Your task to perform on an android device: turn notification dots on Image 0: 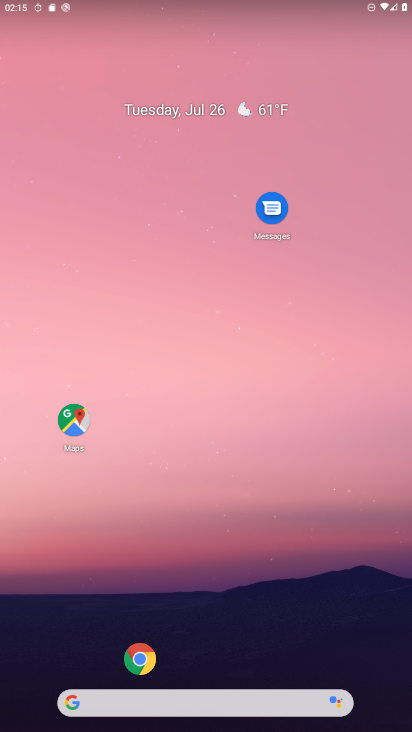
Step 0: drag from (51, 594) to (147, 353)
Your task to perform on an android device: turn notification dots on Image 1: 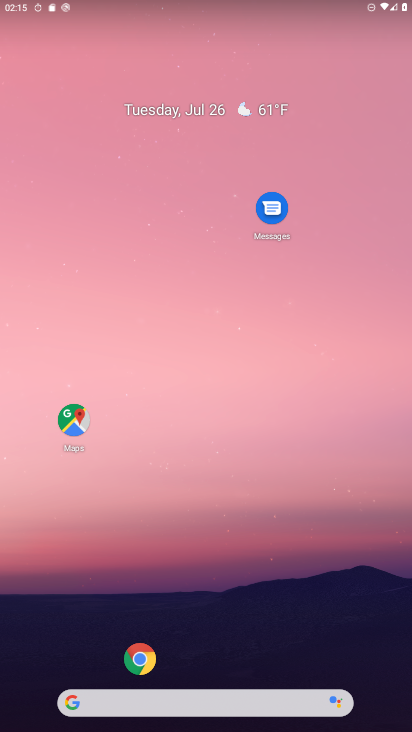
Step 1: drag from (12, 687) to (149, 288)
Your task to perform on an android device: turn notification dots on Image 2: 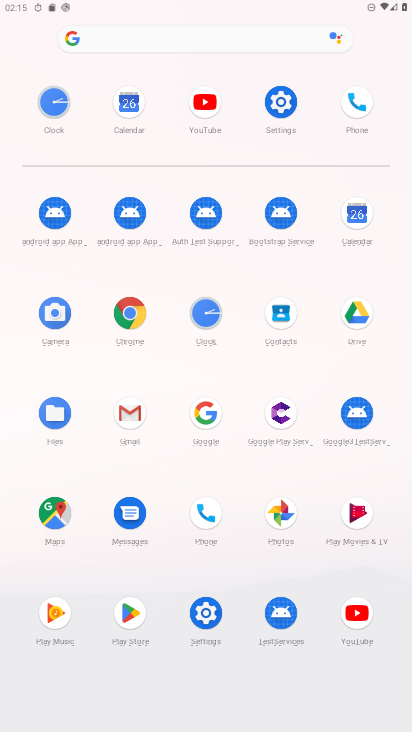
Step 2: click (202, 618)
Your task to perform on an android device: turn notification dots on Image 3: 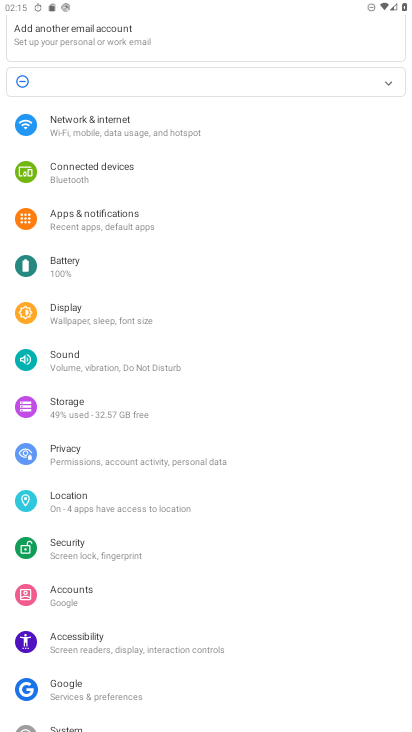
Step 3: click (80, 224)
Your task to perform on an android device: turn notification dots on Image 4: 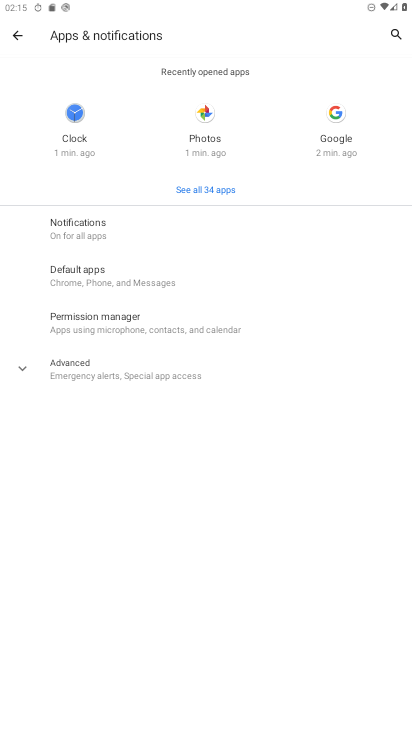
Step 4: click (87, 231)
Your task to perform on an android device: turn notification dots on Image 5: 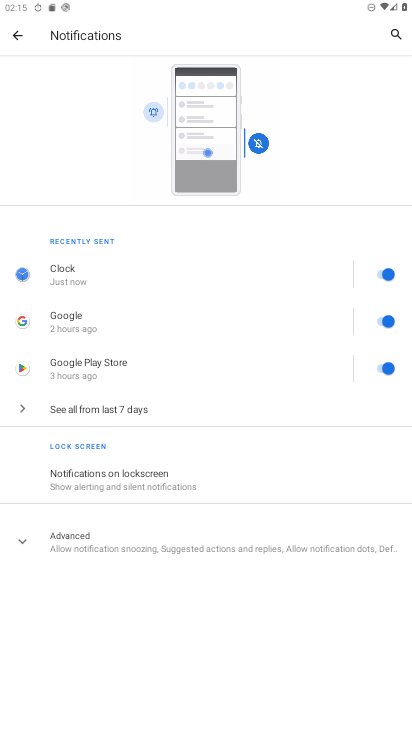
Step 5: click (91, 531)
Your task to perform on an android device: turn notification dots on Image 6: 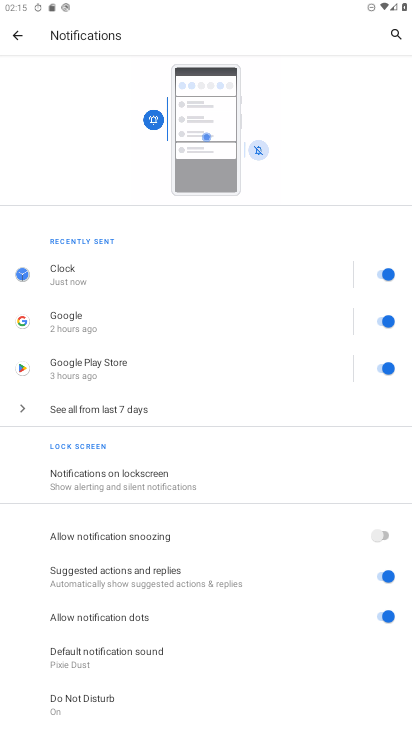
Step 6: task complete